Your task to perform on an android device: Open the stopwatch Image 0: 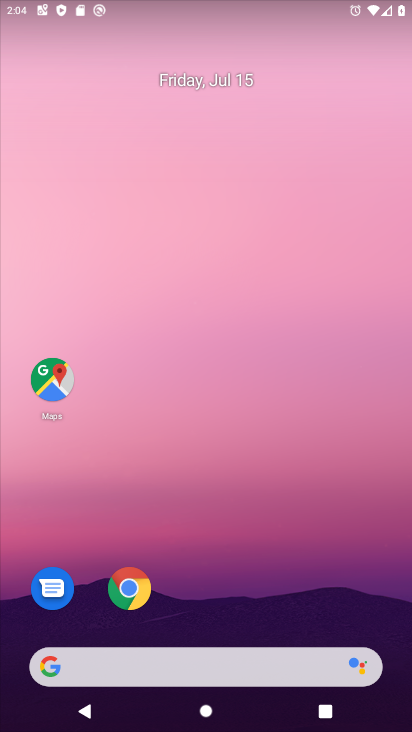
Step 0: drag from (190, 676) to (334, 166)
Your task to perform on an android device: Open the stopwatch Image 1: 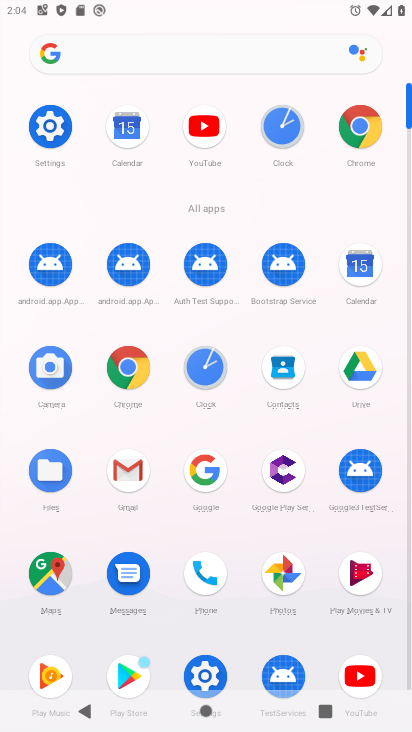
Step 1: click (281, 129)
Your task to perform on an android device: Open the stopwatch Image 2: 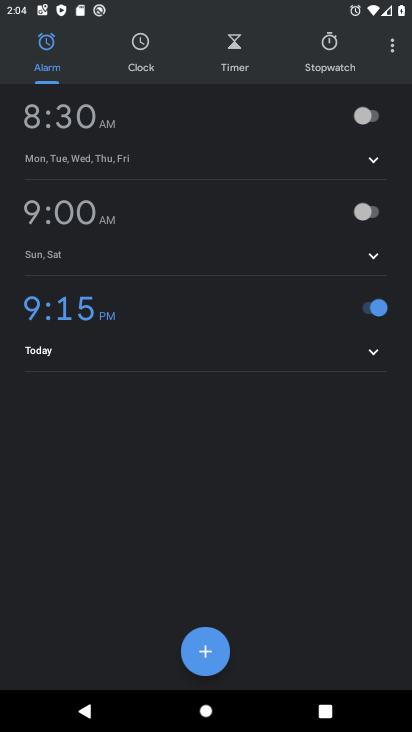
Step 2: click (330, 42)
Your task to perform on an android device: Open the stopwatch Image 3: 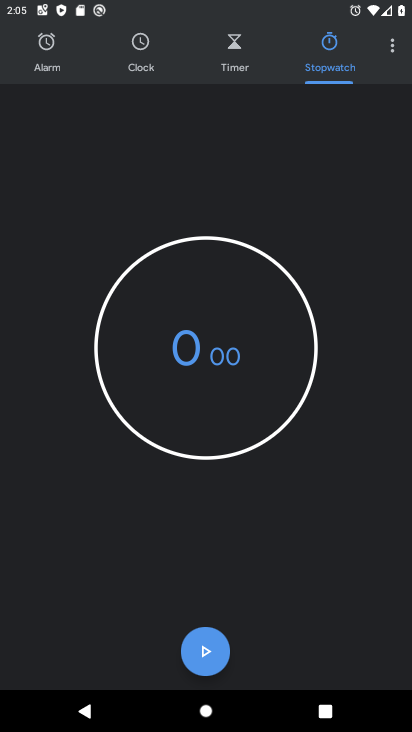
Step 3: task complete